Your task to perform on an android device: turn on bluetooth scan Image 0: 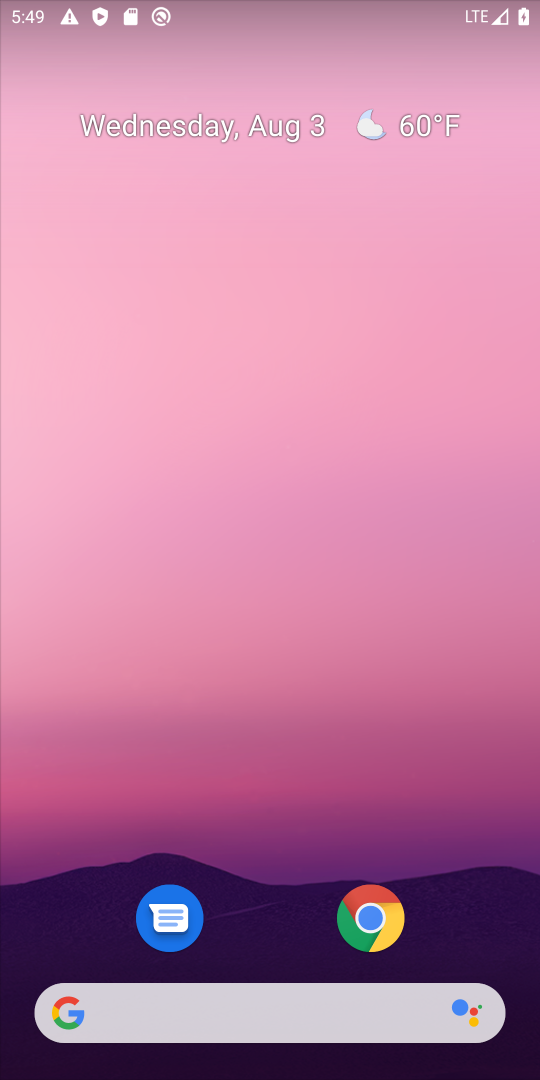
Step 0: drag from (239, 1006) to (350, 294)
Your task to perform on an android device: turn on bluetooth scan Image 1: 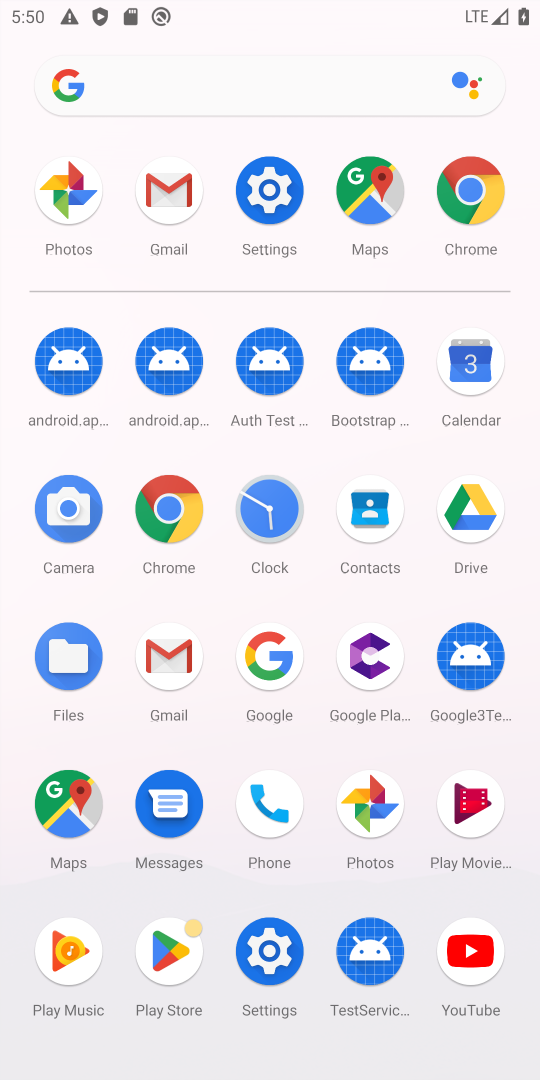
Step 1: click (261, 931)
Your task to perform on an android device: turn on bluetooth scan Image 2: 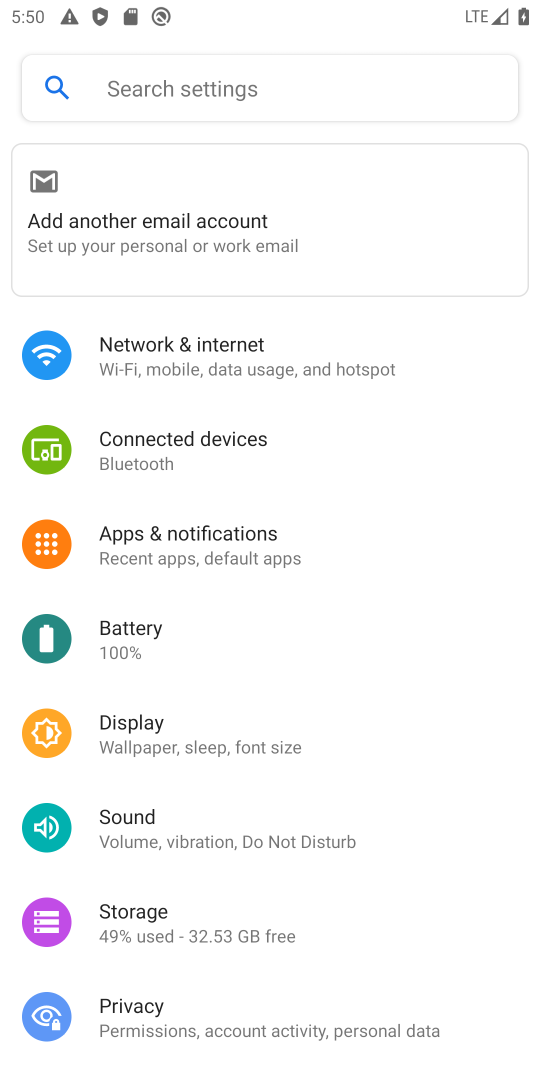
Step 2: drag from (205, 835) to (178, 259)
Your task to perform on an android device: turn on bluetooth scan Image 3: 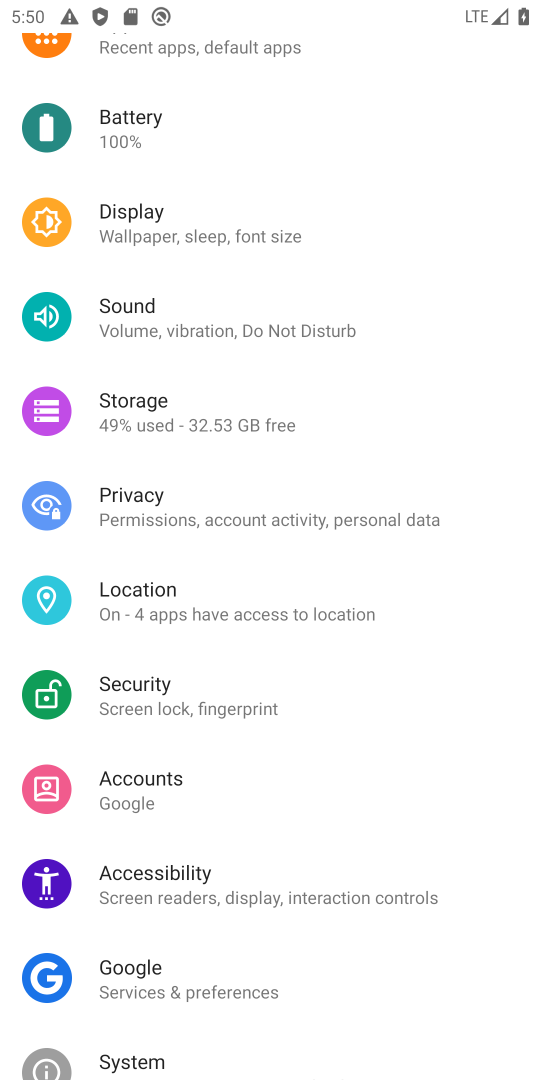
Step 3: click (152, 587)
Your task to perform on an android device: turn on bluetooth scan Image 4: 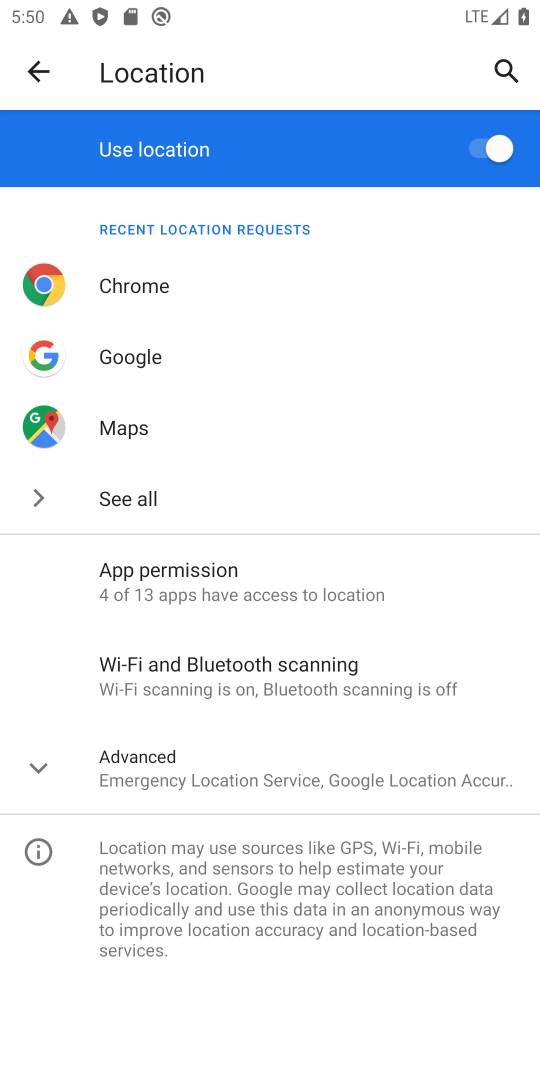
Step 4: click (261, 686)
Your task to perform on an android device: turn on bluetooth scan Image 5: 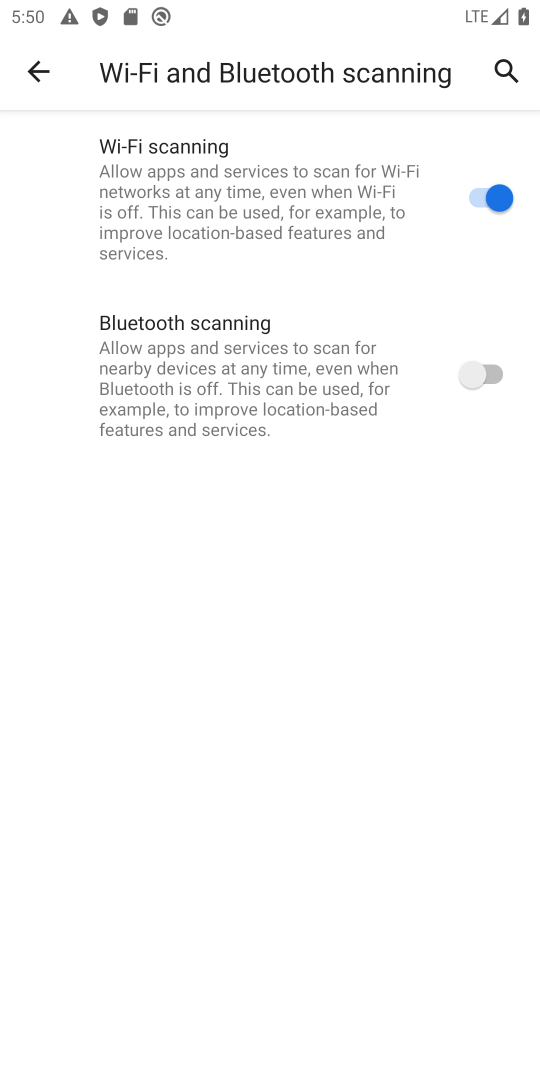
Step 5: click (485, 365)
Your task to perform on an android device: turn on bluetooth scan Image 6: 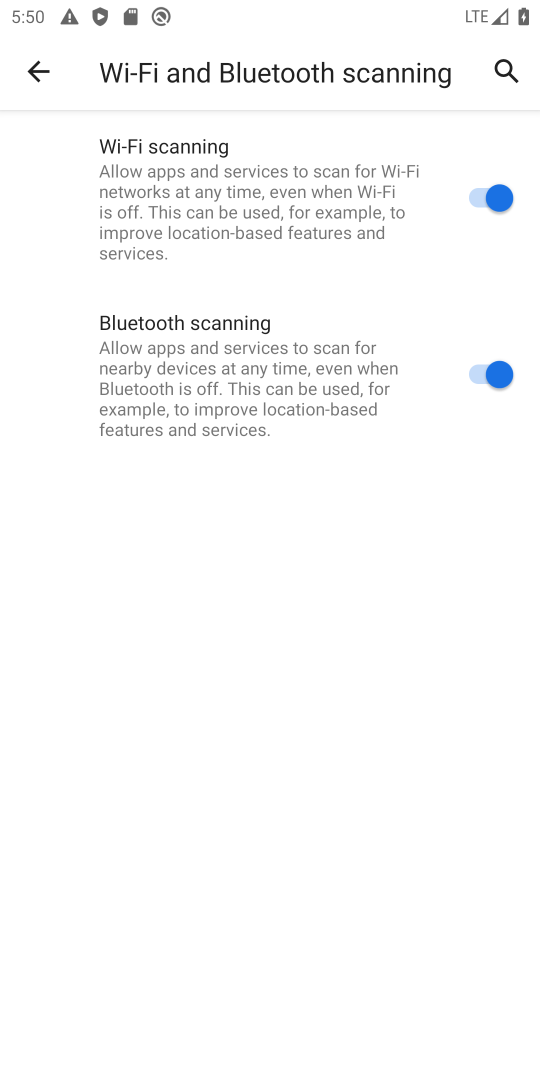
Step 6: task complete